Your task to perform on an android device: Open Maps and search for coffee Image 0: 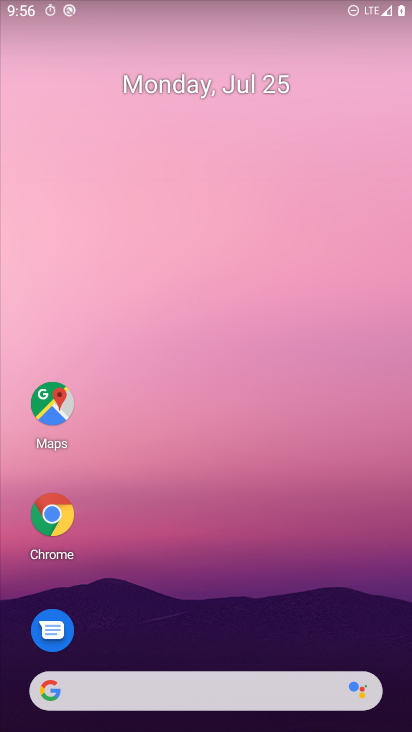
Step 0: click (41, 426)
Your task to perform on an android device: Open Maps and search for coffee Image 1: 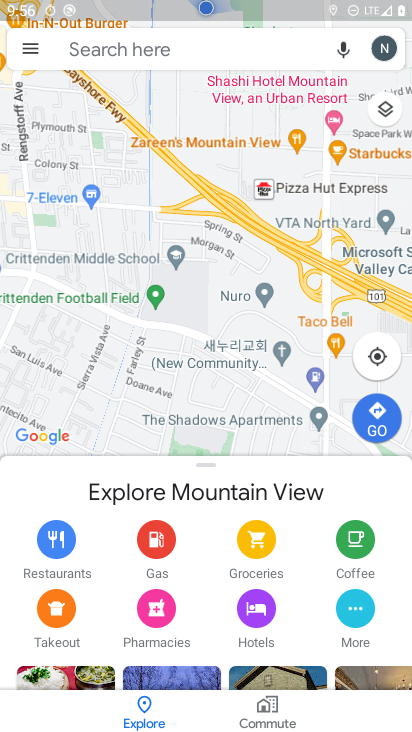
Step 1: click (87, 54)
Your task to perform on an android device: Open Maps and search for coffee Image 2: 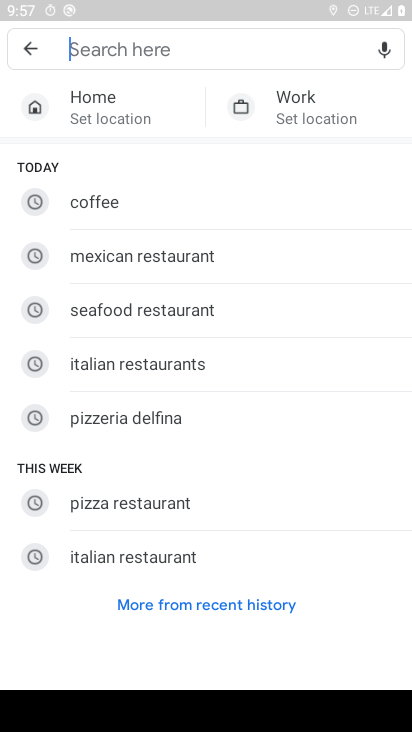
Step 2: click (100, 197)
Your task to perform on an android device: Open Maps and search for coffee Image 3: 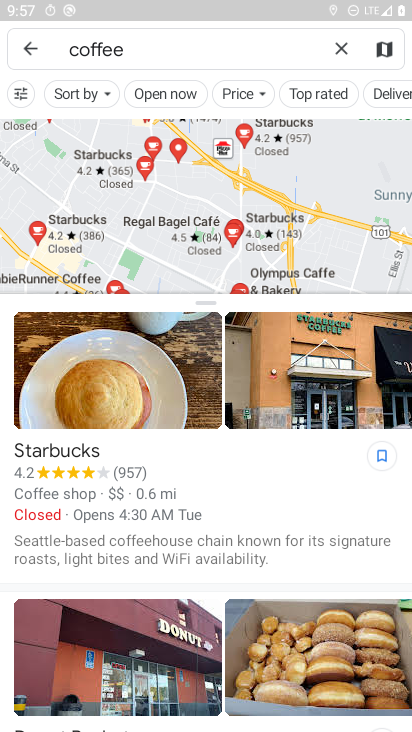
Step 3: task complete